Your task to perform on an android device: Go to network settings Image 0: 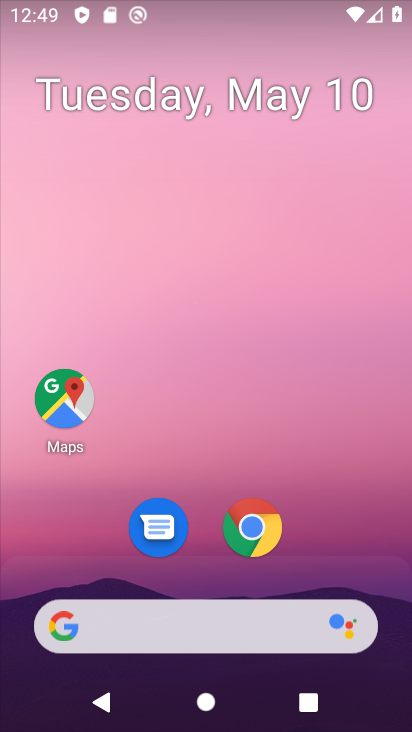
Step 0: drag from (347, 574) to (391, 2)
Your task to perform on an android device: Go to network settings Image 1: 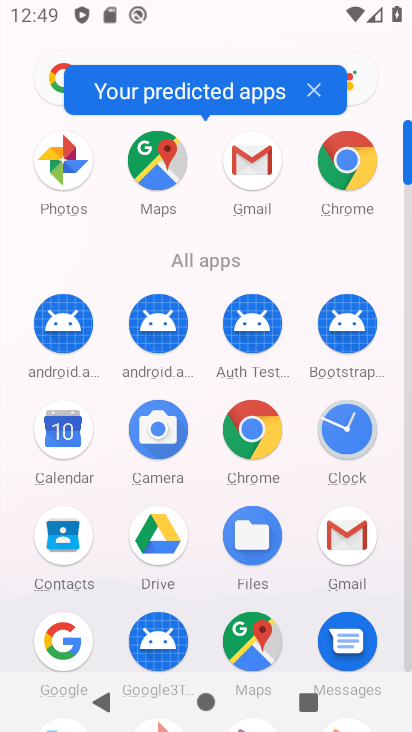
Step 1: click (407, 529)
Your task to perform on an android device: Go to network settings Image 2: 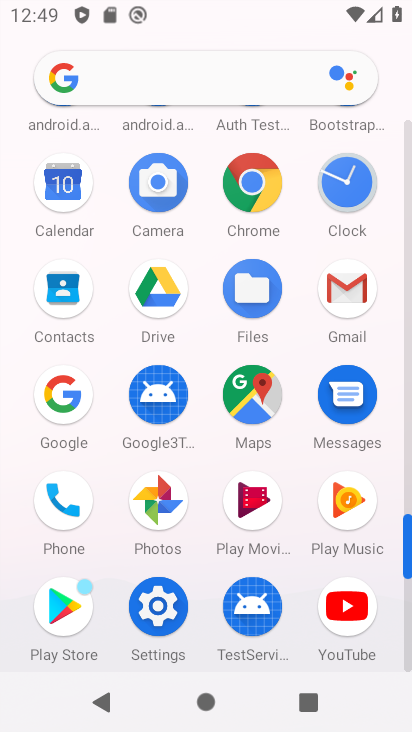
Step 2: click (154, 603)
Your task to perform on an android device: Go to network settings Image 3: 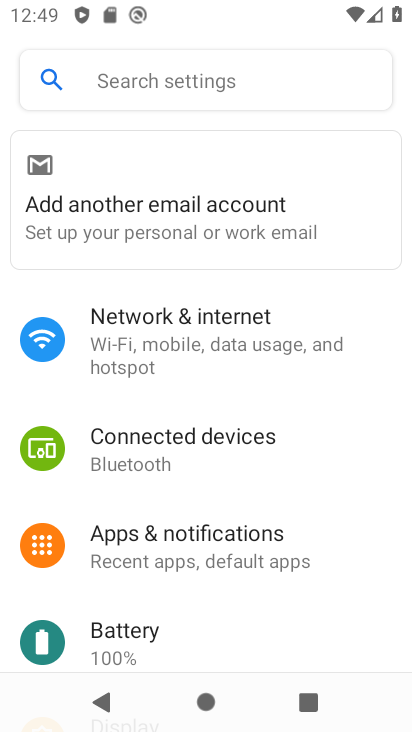
Step 3: click (175, 323)
Your task to perform on an android device: Go to network settings Image 4: 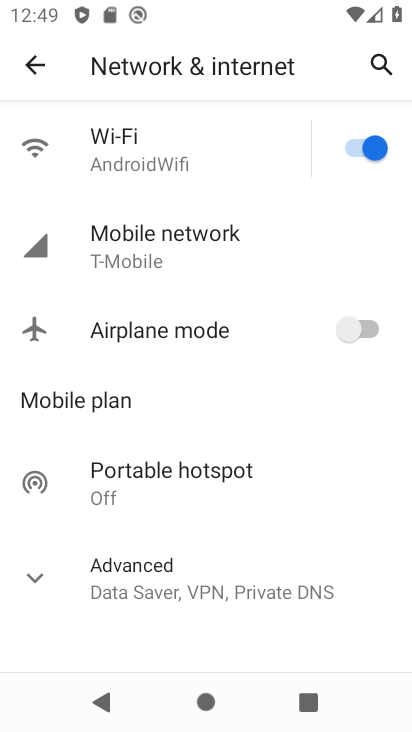
Step 4: click (137, 252)
Your task to perform on an android device: Go to network settings Image 5: 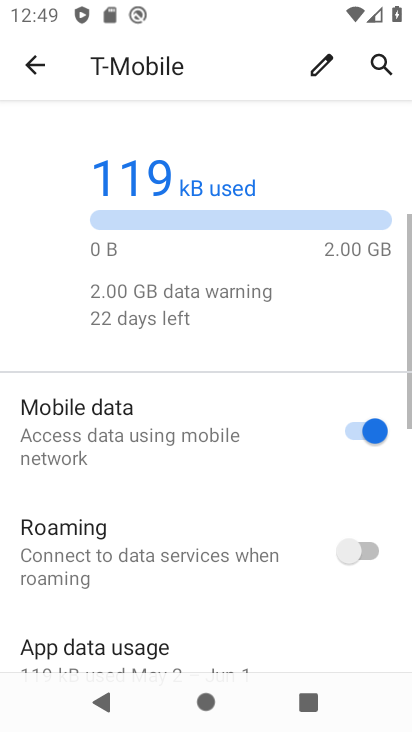
Step 5: drag from (178, 516) to (209, 94)
Your task to perform on an android device: Go to network settings Image 6: 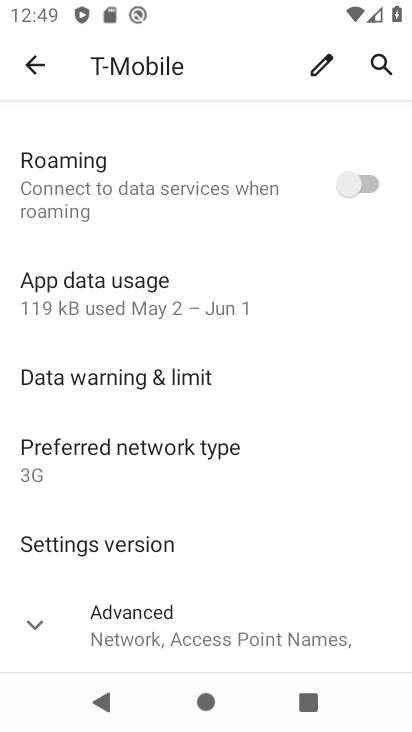
Step 6: drag from (233, 580) to (228, 411)
Your task to perform on an android device: Go to network settings Image 7: 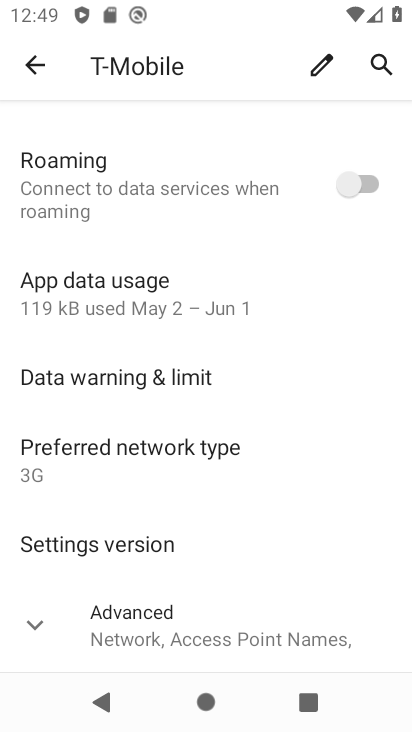
Step 7: click (33, 636)
Your task to perform on an android device: Go to network settings Image 8: 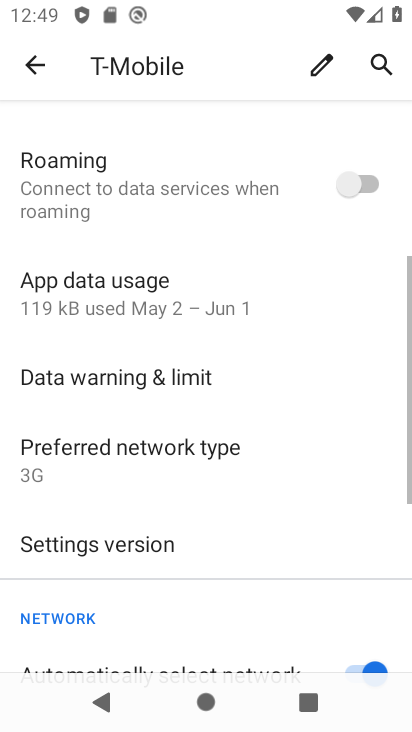
Step 8: task complete